Your task to perform on an android device: What's the weather? Image 0: 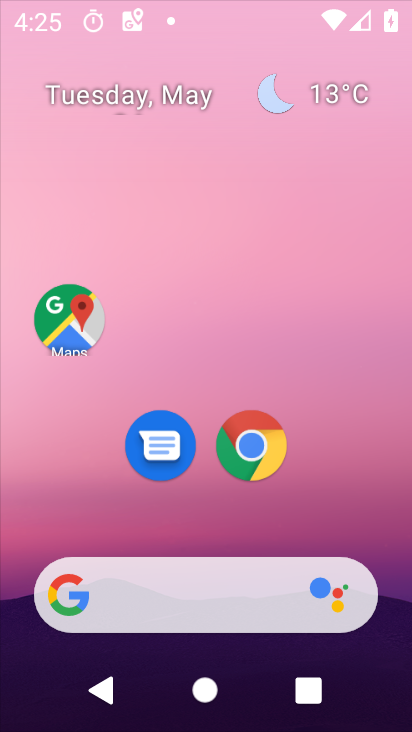
Step 0: press home button
Your task to perform on an android device: What's the weather? Image 1: 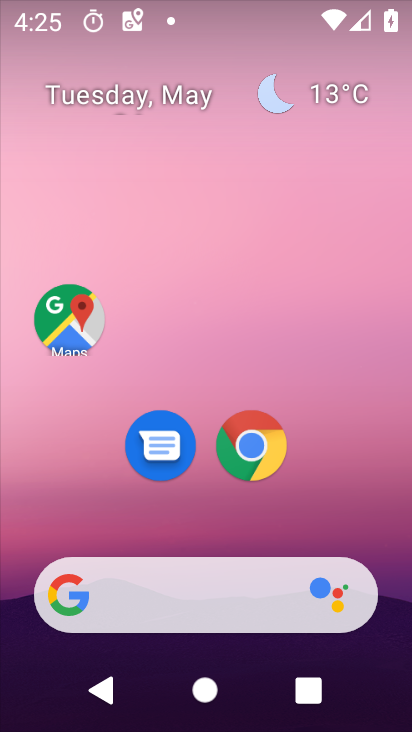
Step 1: click (331, 89)
Your task to perform on an android device: What's the weather? Image 2: 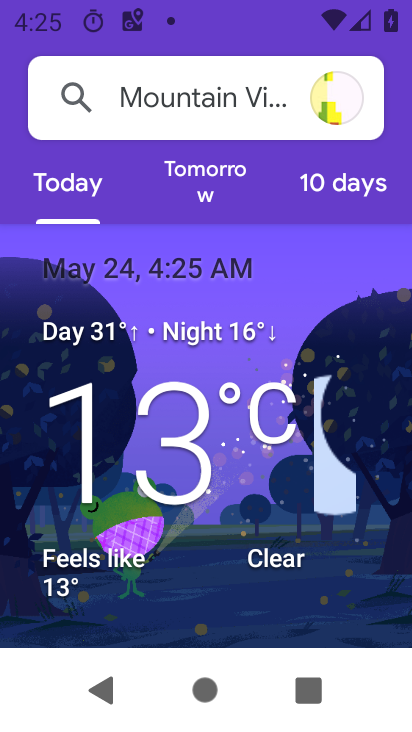
Step 2: drag from (228, 561) to (225, 256)
Your task to perform on an android device: What's the weather? Image 3: 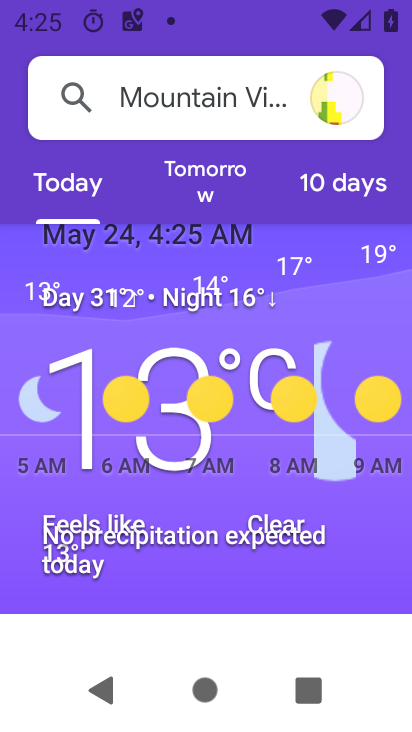
Step 3: drag from (372, 397) to (7, 457)
Your task to perform on an android device: What's the weather? Image 4: 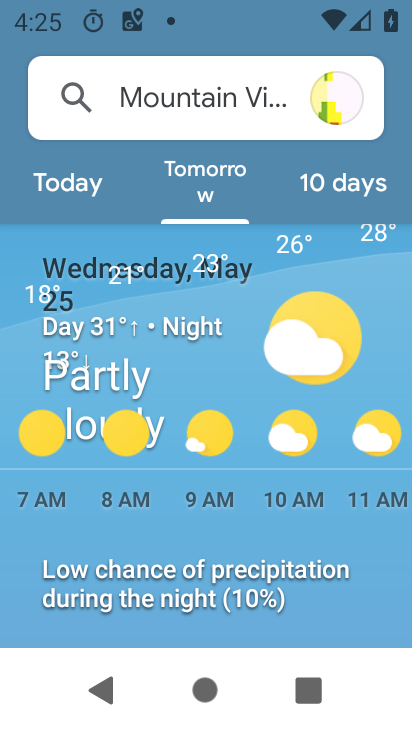
Step 4: click (60, 187)
Your task to perform on an android device: What's the weather? Image 5: 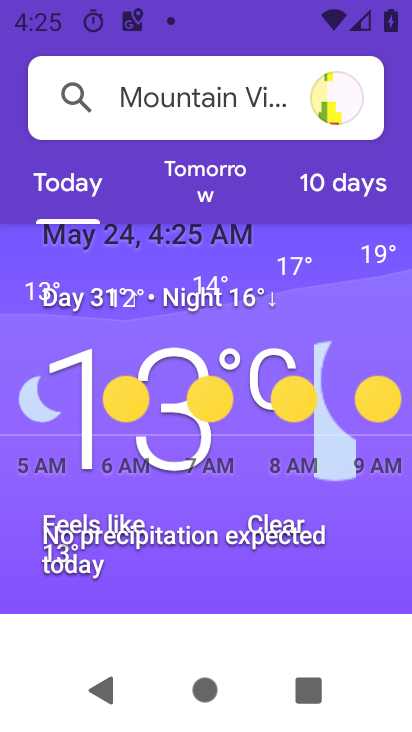
Step 5: task complete